Your task to perform on an android device: Open the phone app and click the voicemail tab. Image 0: 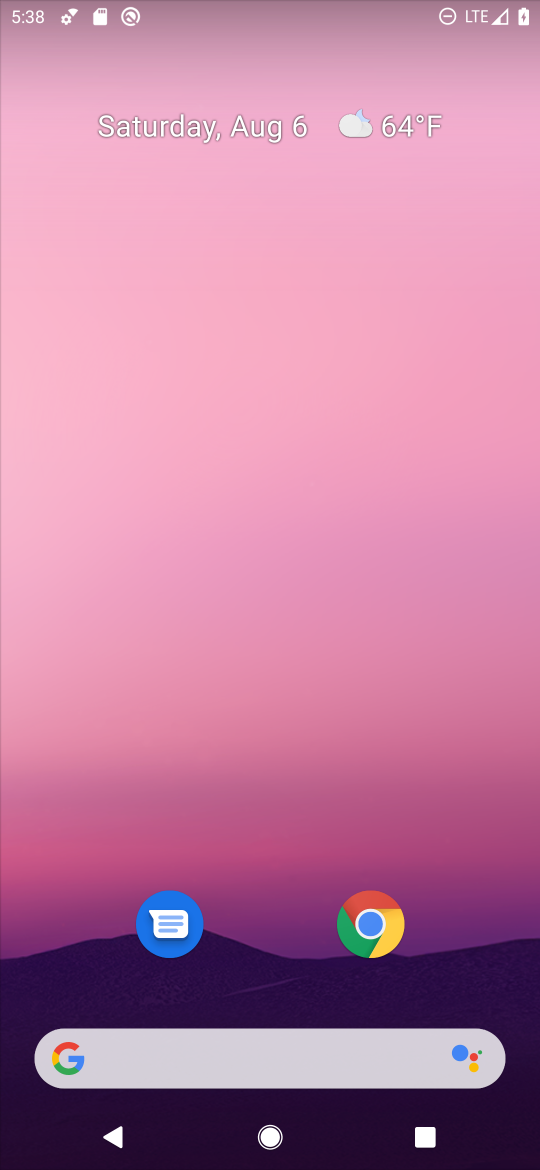
Step 0: click (192, 22)
Your task to perform on an android device: Open the phone app and click the voicemail tab. Image 1: 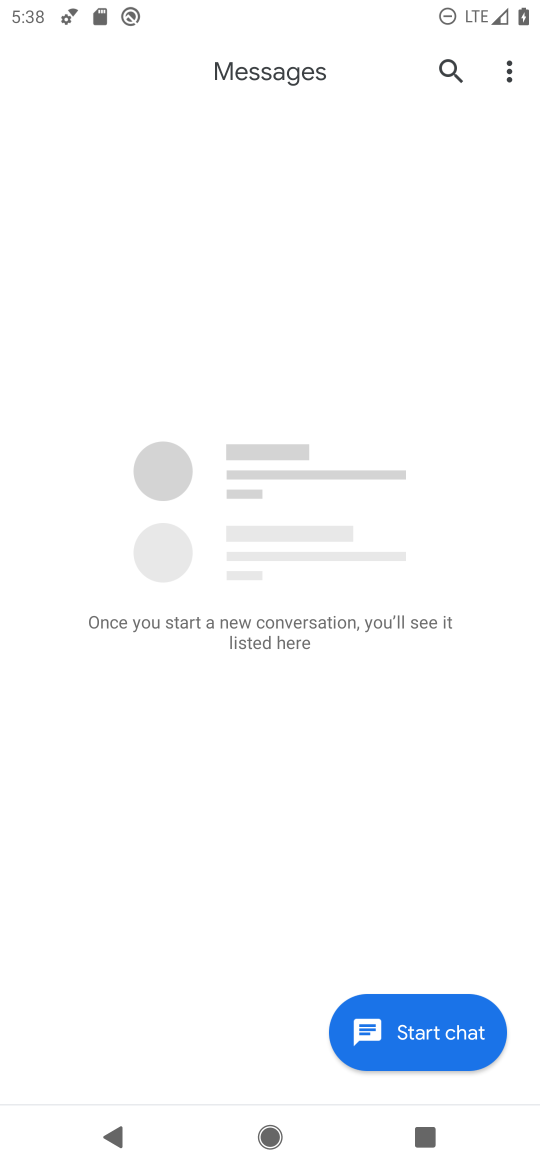
Step 1: press home button
Your task to perform on an android device: Open the phone app and click the voicemail tab. Image 2: 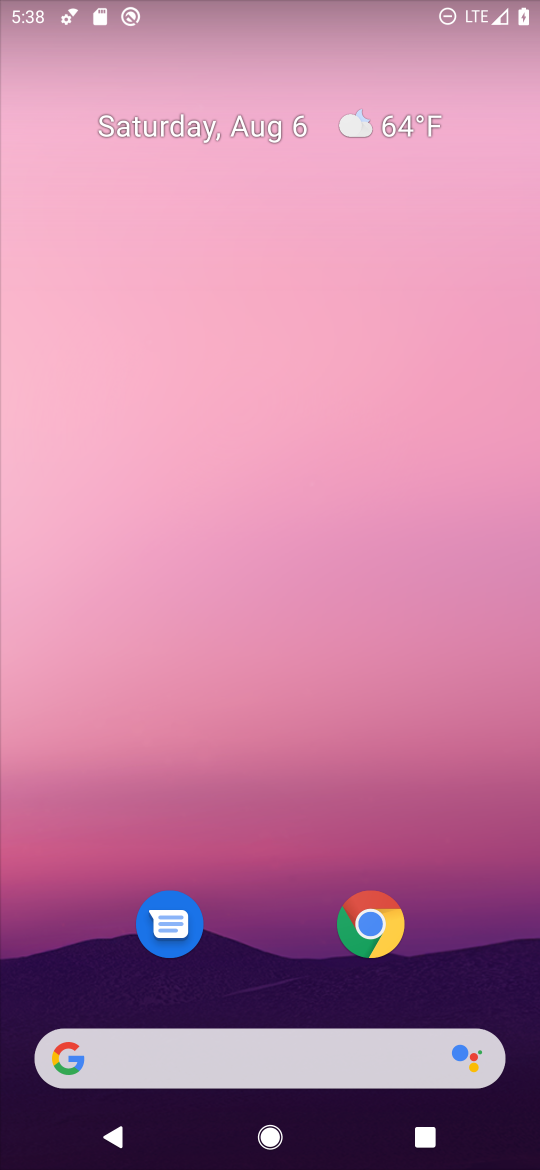
Step 2: drag from (263, 555) to (252, 80)
Your task to perform on an android device: Open the phone app and click the voicemail tab. Image 3: 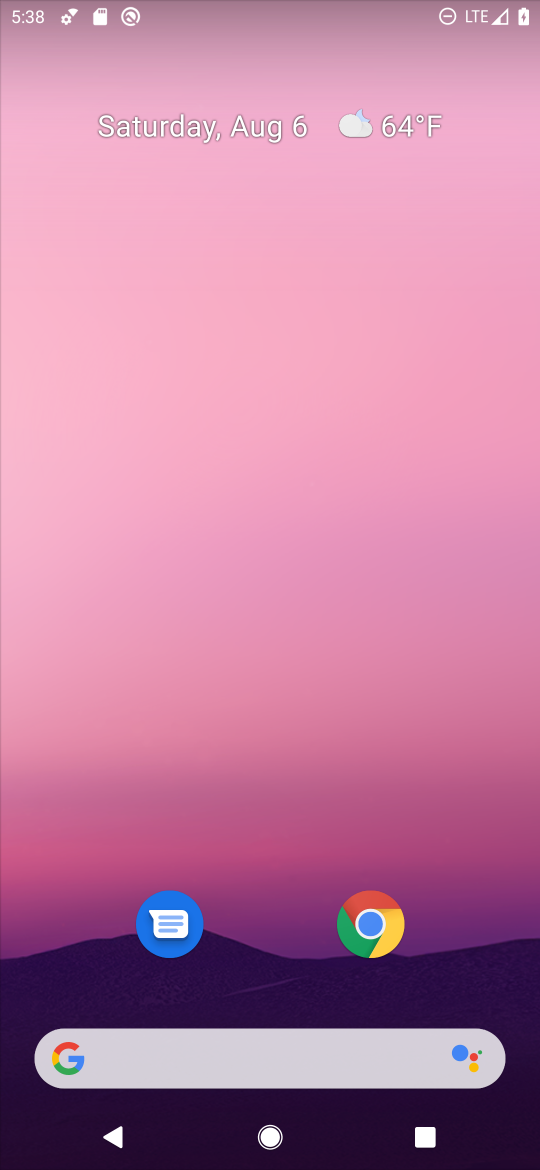
Step 3: drag from (265, 955) to (294, 163)
Your task to perform on an android device: Open the phone app and click the voicemail tab. Image 4: 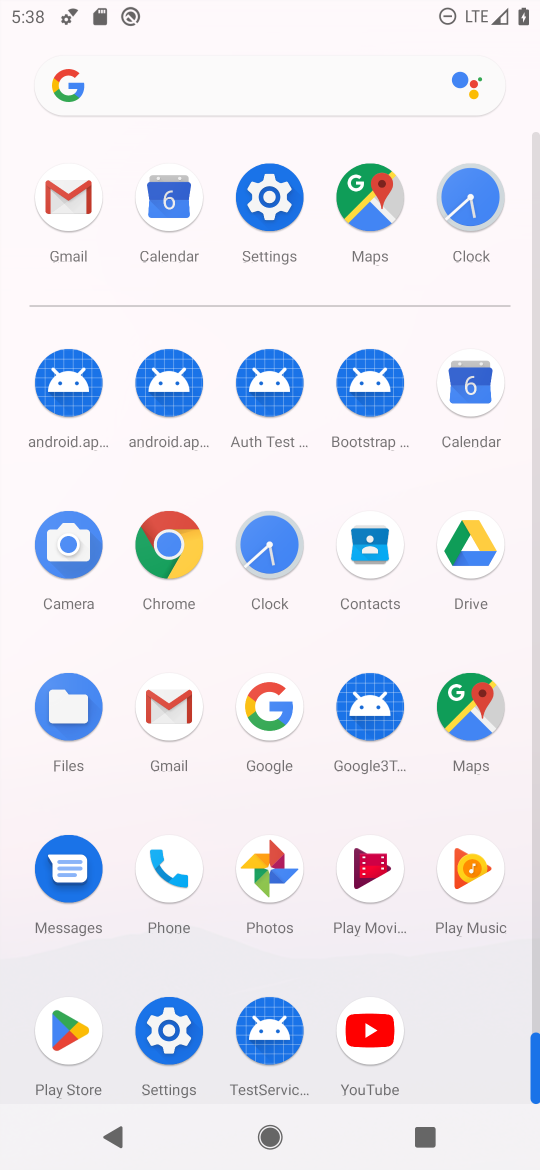
Step 4: click (161, 865)
Your task to perform on an android device: Open the phone app and click the voicemail tab. Image 5: 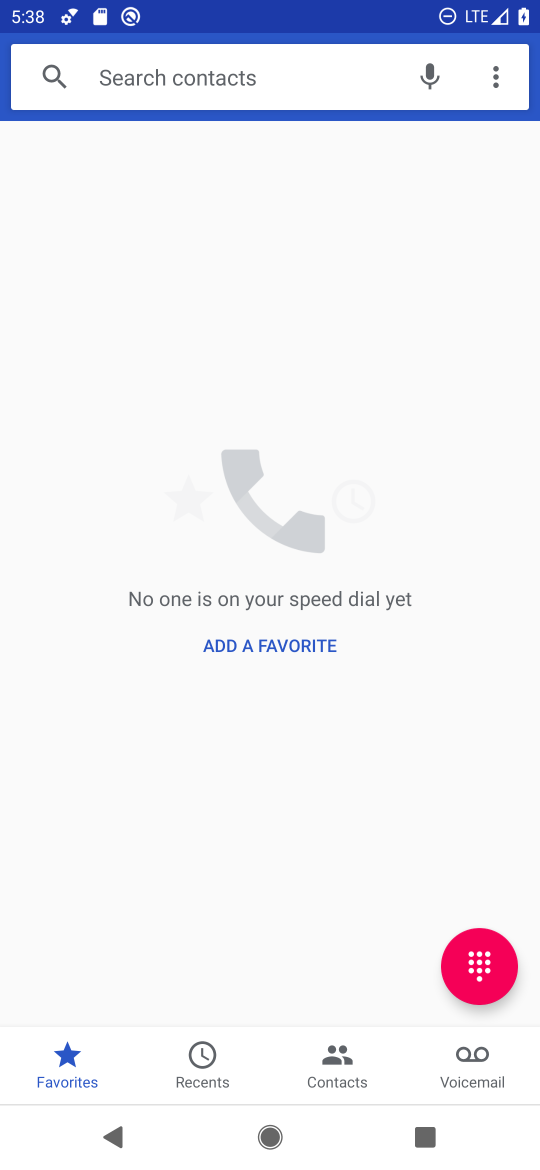
Step 5: click (473, 1050)
Your task to perform on an android device: Open the phone app and click the voicemail tab. Image 6: 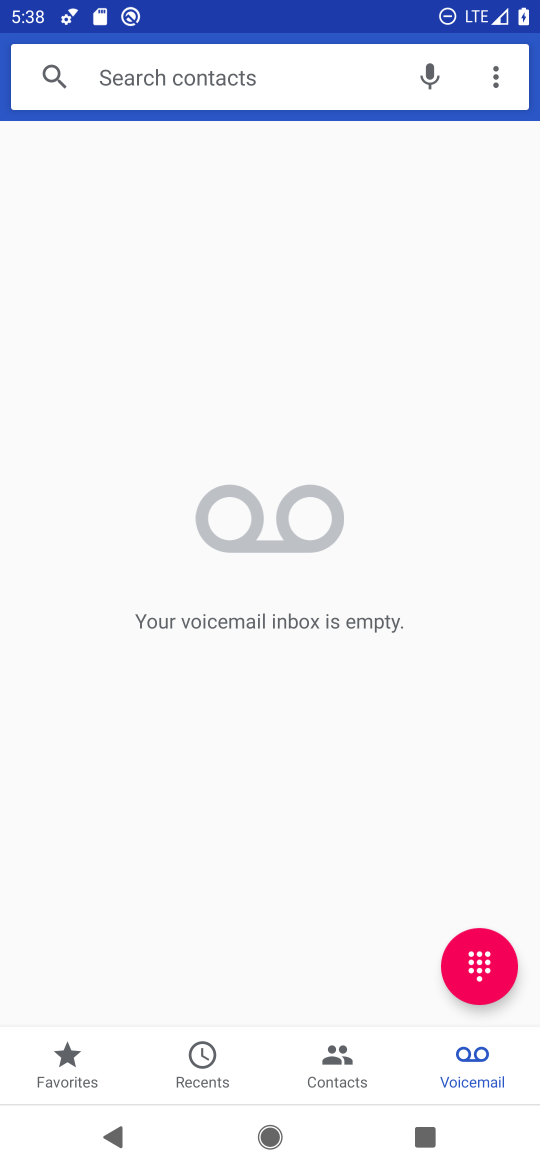
Step 6: task complete